Your task to perform on an android device: turn off data saver in the chrome app Image 0: 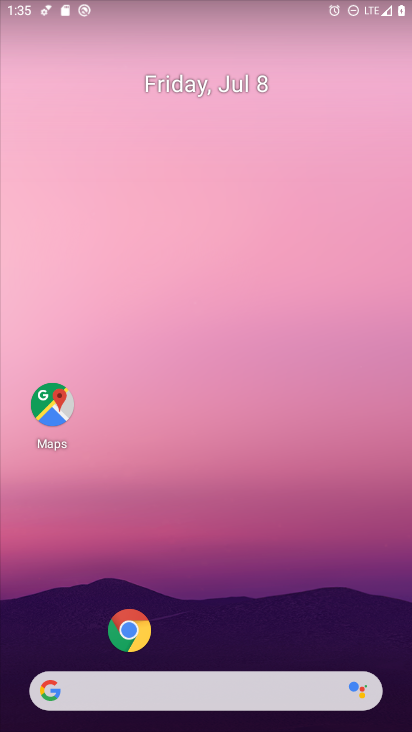
Step 0: drag from (278, 700) to (213, 56)
Your task to perform on an android device: turn off data saver in the chrome app Image 1: 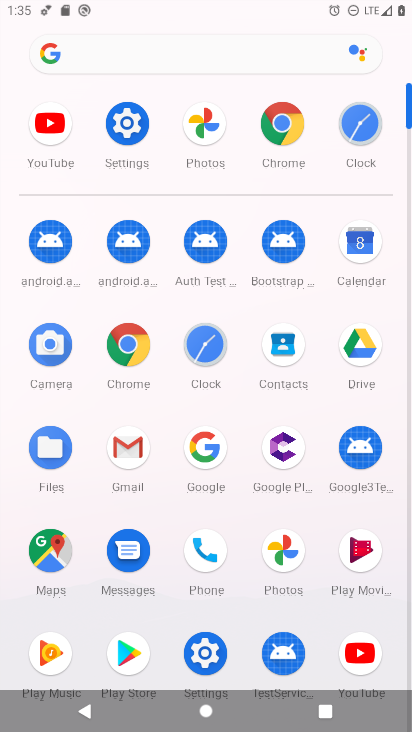
Step 1: click (130, 352)
Your task to perform on an android device: turn off data saver in the chrome app Image 2: 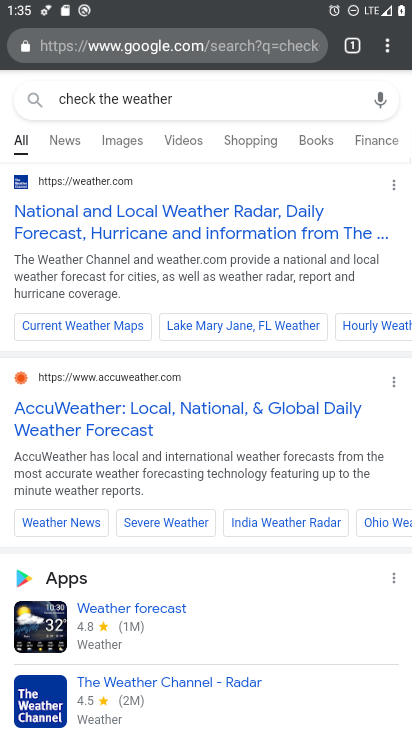
Step 2: click (392, 47)
Your task to perform on an android device: turn off data saver in the chrome app Image 3: 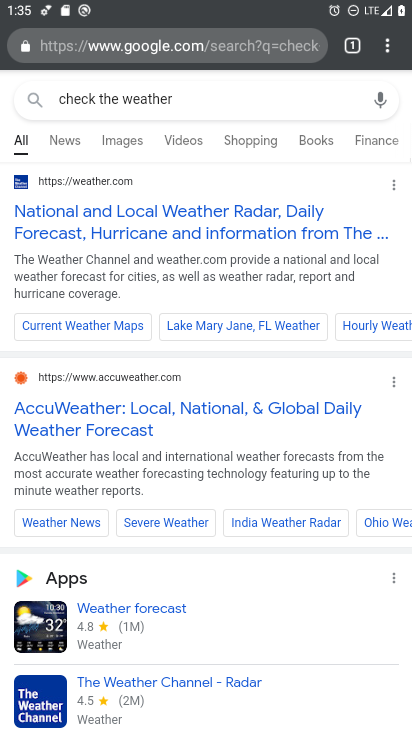
Step 3: click (393, 43)
Your task to perform on an android device: turn off data saver in the chrome app Image 4: 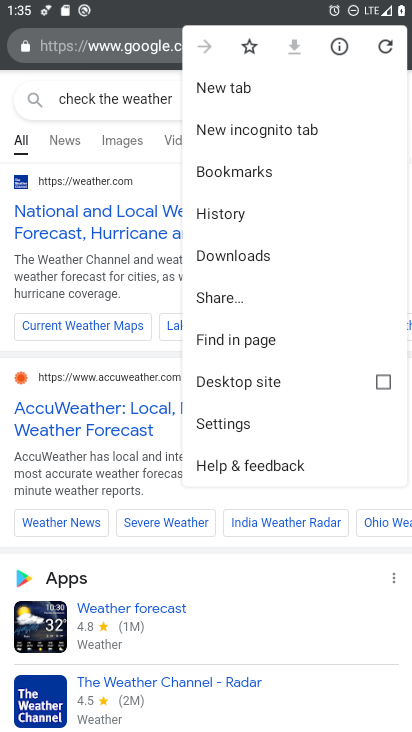
Step 4: click (265, 427)
Your task to perform on an android device: turn off data saver in the chrome app Image 5: 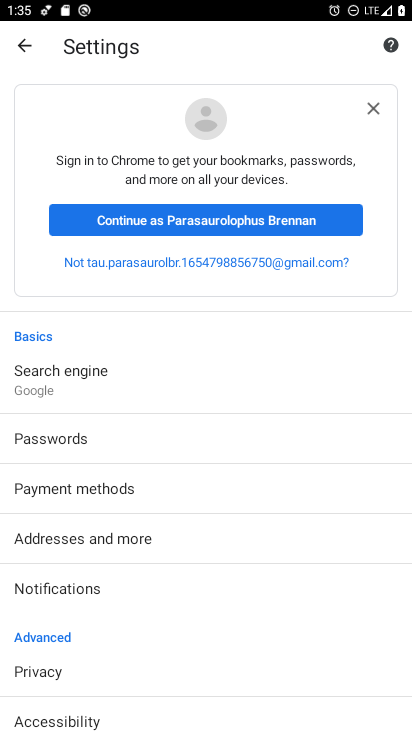
Step 5: drag from (190, 670) to (226, 228)
Your task to perform on an android device: turn off data saver in the chrome app Image 6: 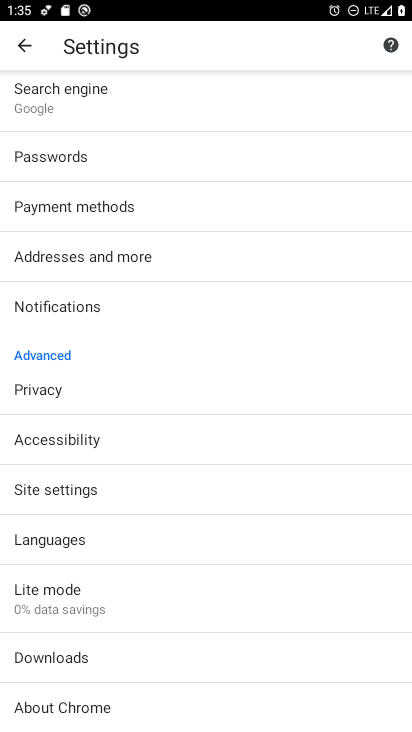
Step 6: click (100, 601)
Your task to perform on an android device: turn off data saver in the chrome app Image 7: 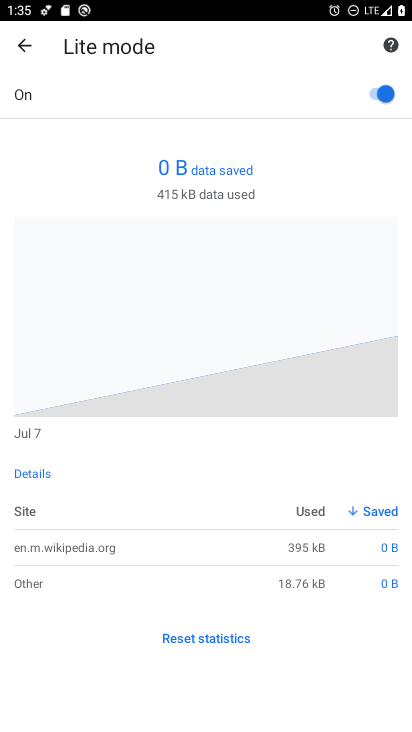
Step 7: click (377, 96)
Your task to perform on an android device: turn off data saver in the chrome app Image 8: 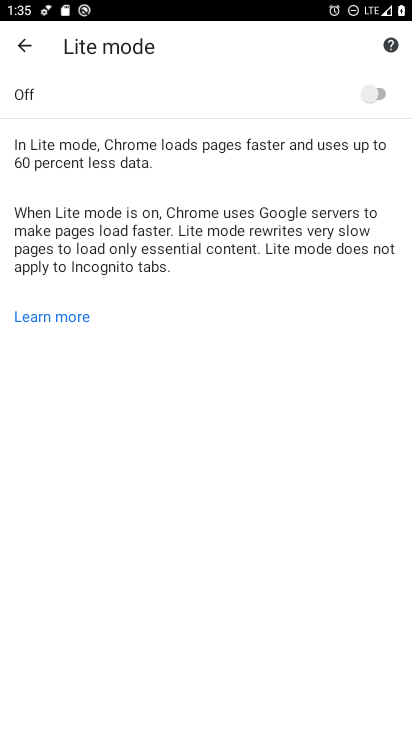
Step 8: task complete